Your task to perform on an android device: open a bookmark in the chrome app Image 0: 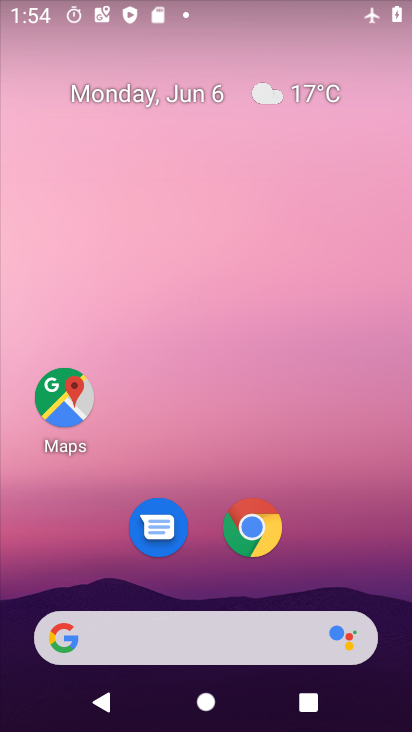
Step 0: click (251, 522)
Your task to perform on an android device: open a bookmark in the chrome app Image 1: 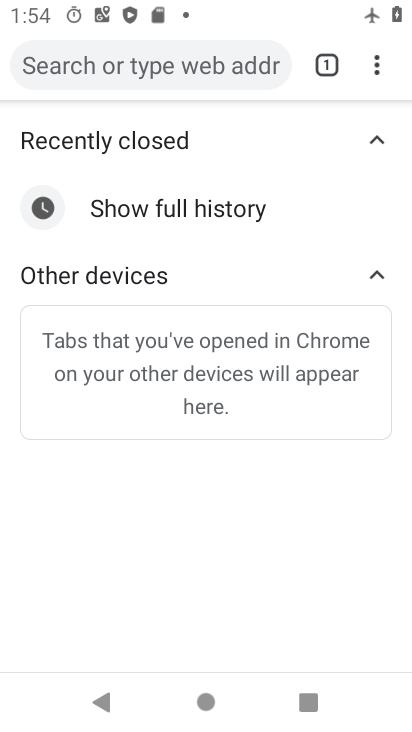
Step 1: click (378, 72)
Your task to perform on an android device: open a bookmark in the chrome app Image 2: 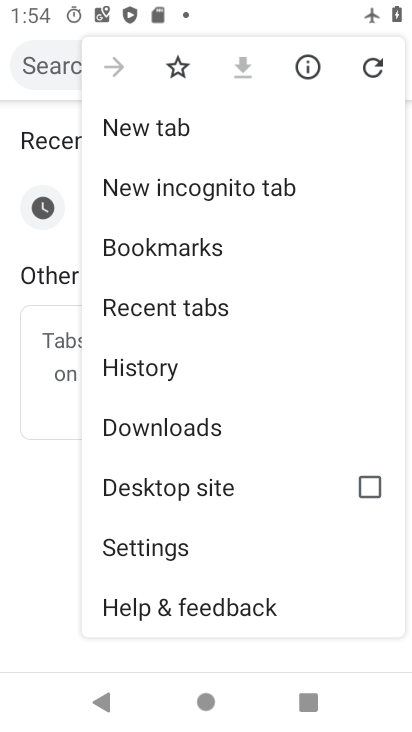
Step 2: click (184, 253)
Your task to perform on an android device: open a bookmark in the chrome app Image 3: 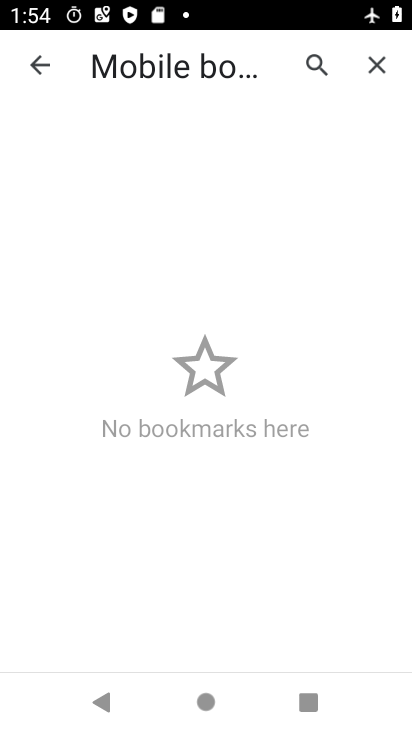
Step 3: task complete